Your task to perform on an android device: see creations saved in the google photos Image 0: 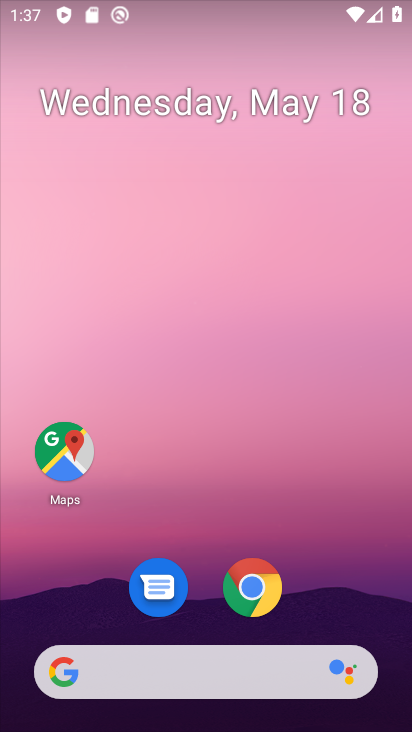
Step 0: drag from (359, 589) to (279, 154)
Your task to perform on an android device: see creations saved in the google photos Image 1: 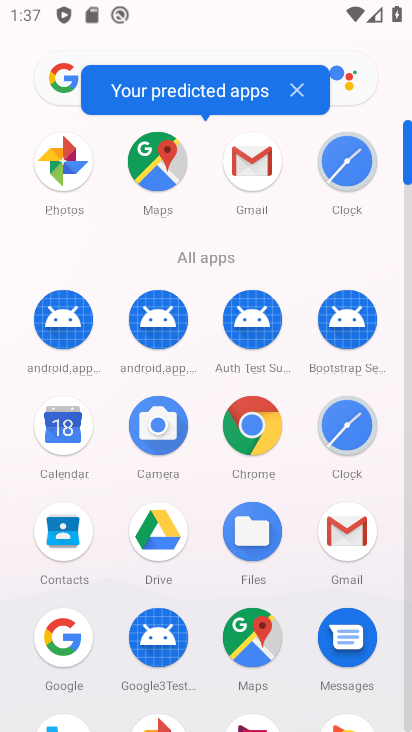
Step 1: click (66, 162)
Your task to perform on an android device: see creations saved in the google photos Image 2: 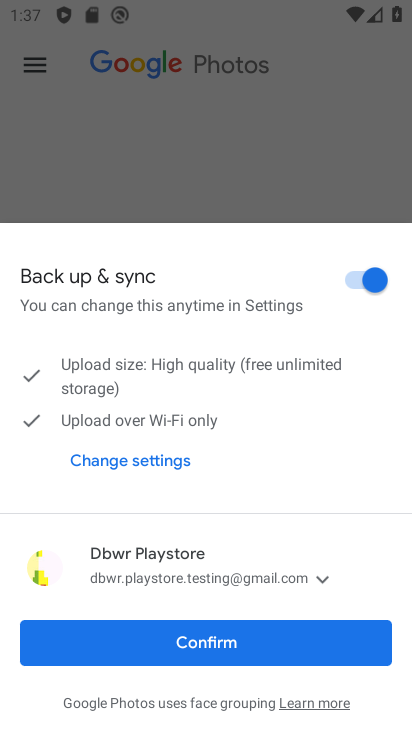
Step 2: click (251, 646)
Your task to perform on an android device: see creations saved in the google photos Image 3: 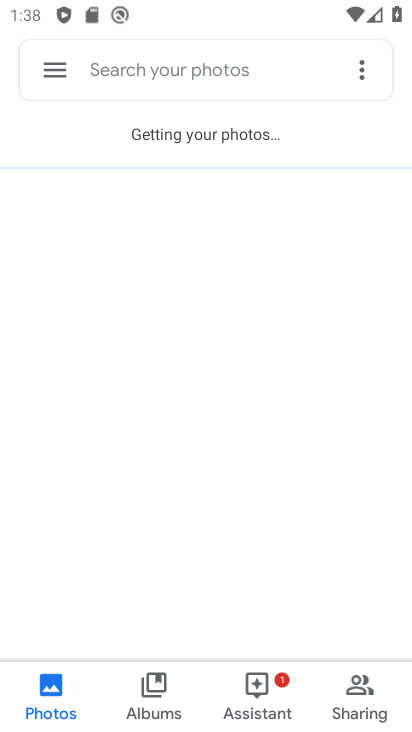
Step 3: click (234, 62)
Your task to perform on an android device: see creations saved in the google photos Image 4: 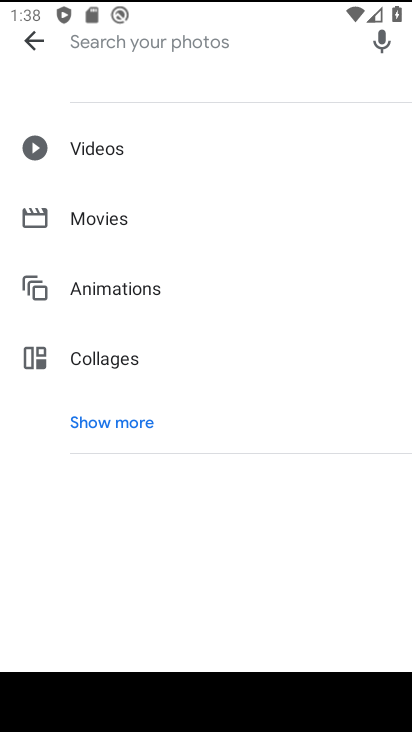
Step 4: click (158, 421)
Your task to perform on an android device: see creations saved in the google photos Image 5: 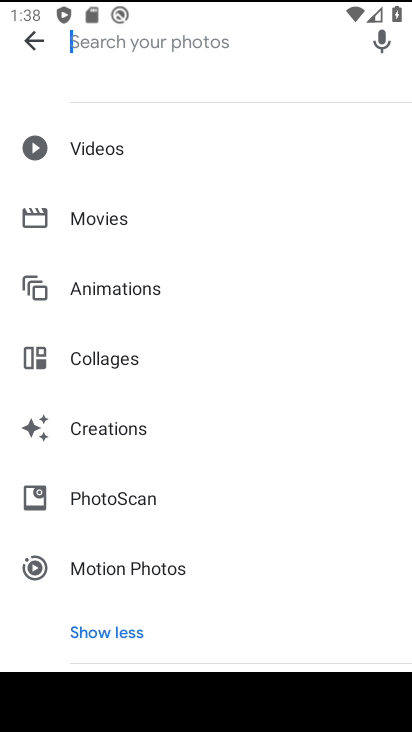
Step 5: click (156, 424)
Your task to perform on an android device: see creations saved in the google photos Image 6: 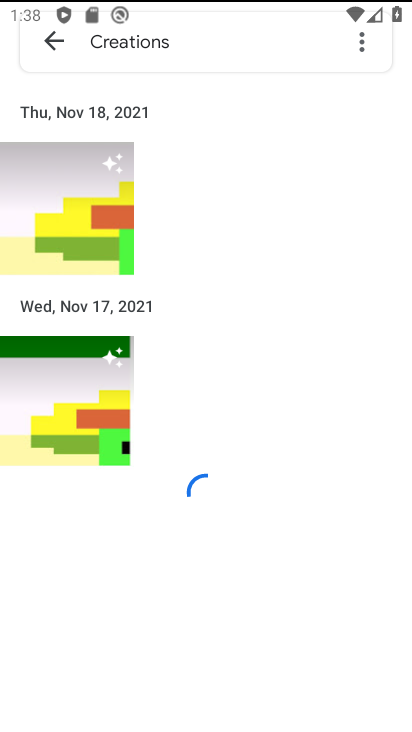
Step 6: task complete